Your task to perform on an android device: Open sound settings Image 0: 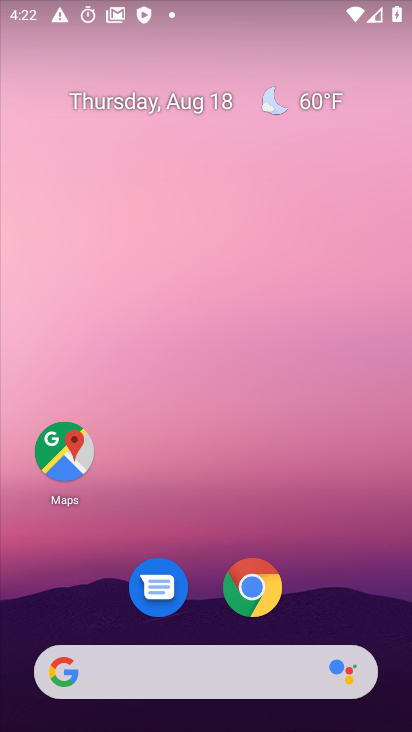
Step 0: drag from (349, 541) to (299, 92)
Your task to perform on an android device: Open sound settings Image 1: 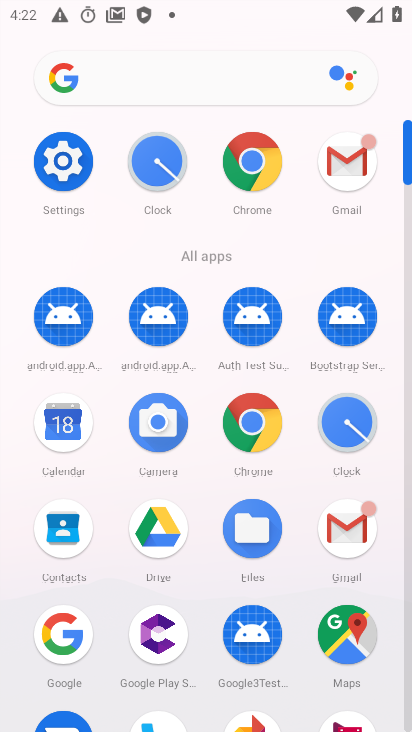
Step 1: click (57, 163)
Your task to perform on an android device: Open sound settings Image 2: 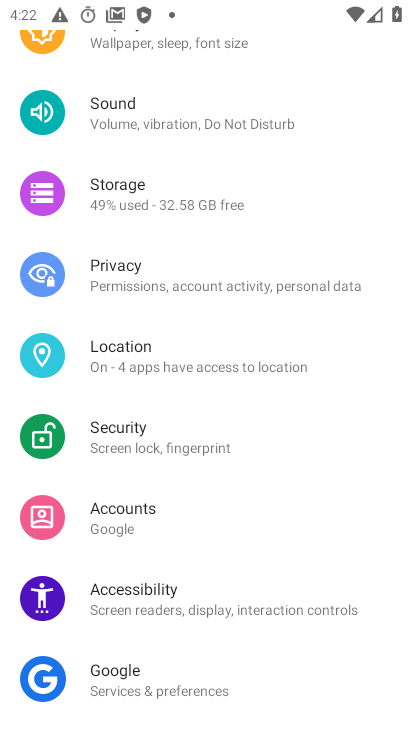
Step 2: click (111, 117)
Your task to perform on an android device: Open sound settings Image 3: 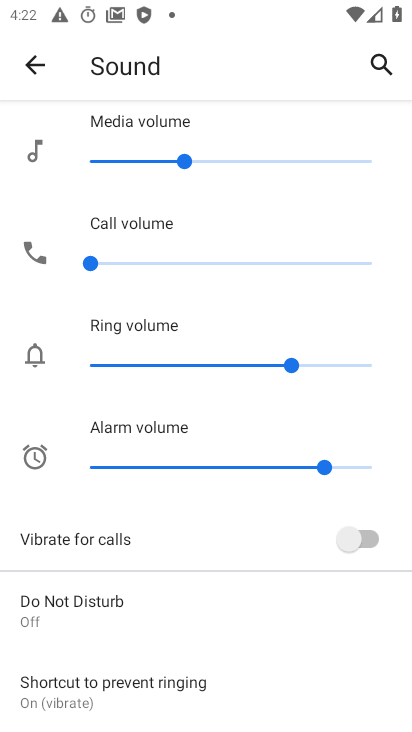
Step 3: task complete